Your task to perform on an android device: turn on notifications settings in the gmail app Image 0: 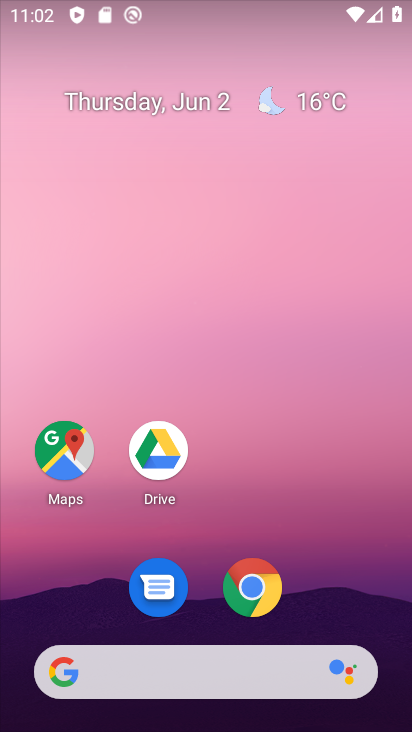
Step 0: click (370, 518)
Your task to perform on an android device: turn on notifications settings in the gmail app Image 1: 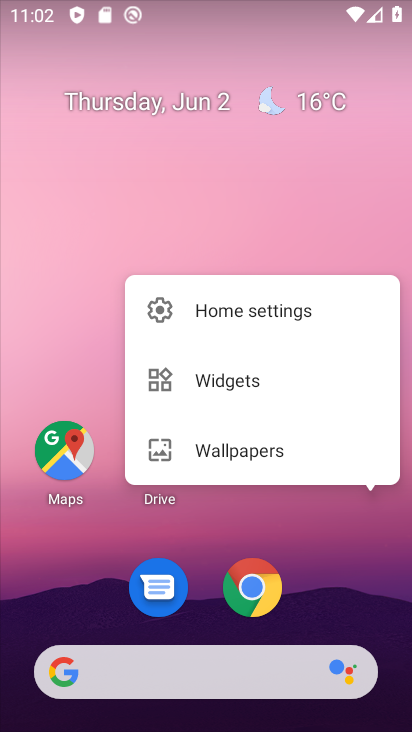
Step 1: drag from (370, 518) to (386, 273)
Your task to perform on an android device: turn on notifications settings in the gmail app Image 2: 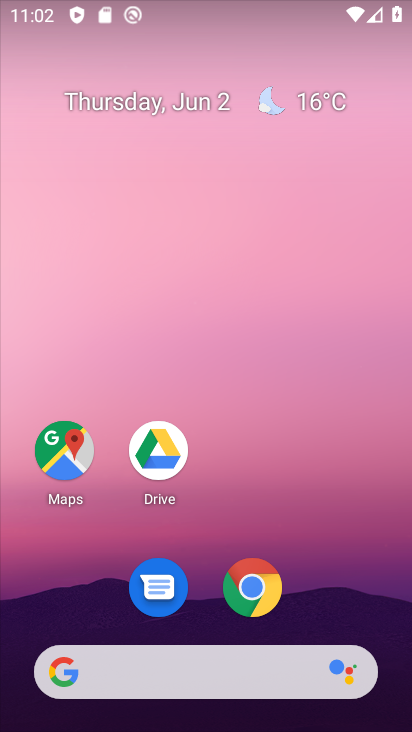
Step 2: drag from (381, 536) to (348, 85)
Your task to perform on an android device: turn on notifications settings in the gmail app Image 3: 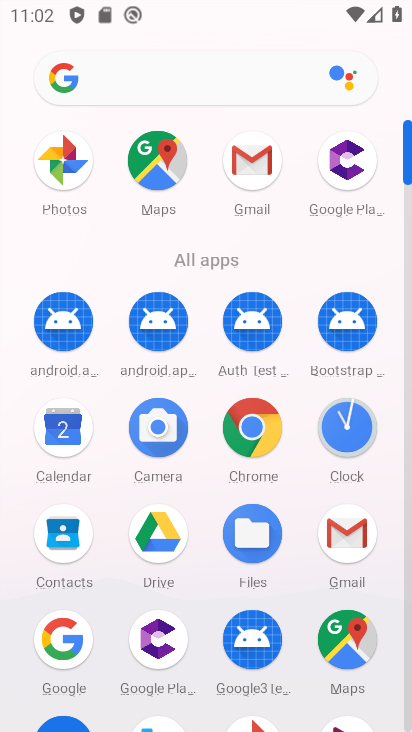
Step 3: click (346, 516)
Your task to perform on an android device: turn on notifications settings in the gmail app Image 4: 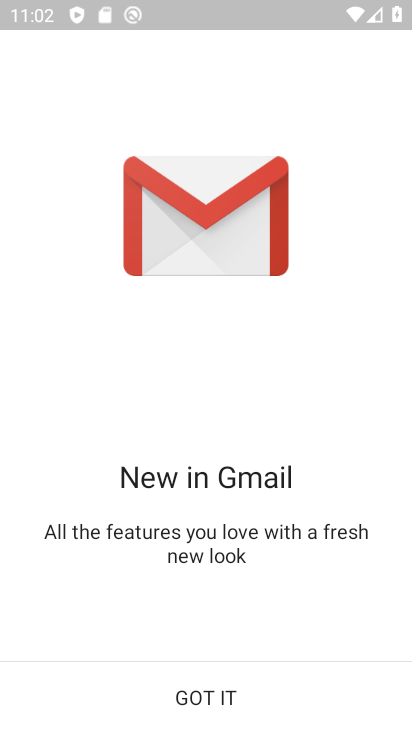
Step 4: click (246, 663)
Your task to perform on an android device: turn on notifications settings in the gmail app Image 5: 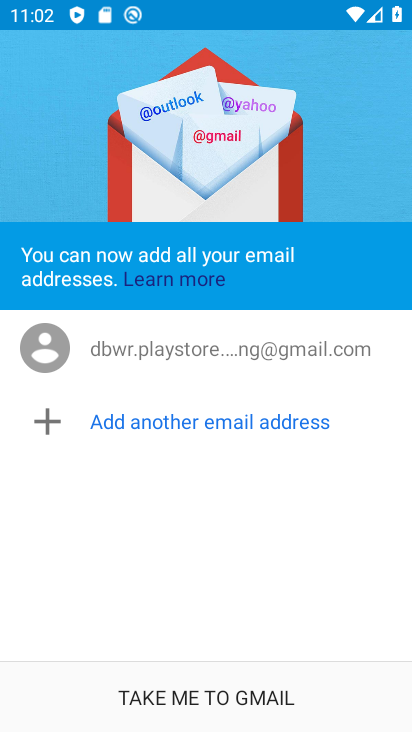
Step 5: click (233, 681)
Your task to perform on an android device: turn on notifications settings in the gmail app Image 6: 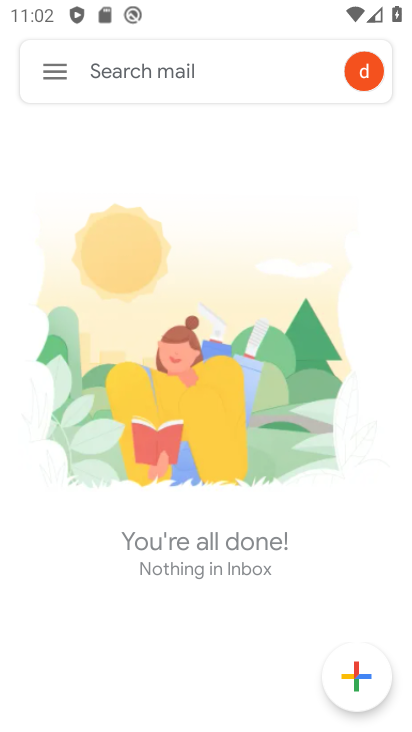
Step 6: click (64, 81)
Your task to perform on an android device: turn on notifications settings in the gmail app Image 7: 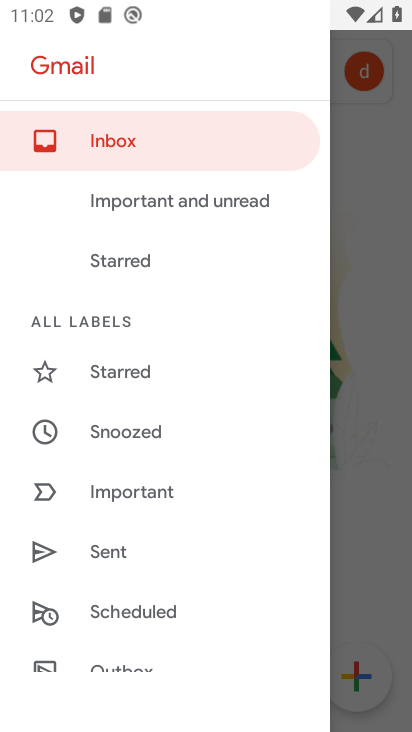
Step 7: drag from (275, 547) to (265, 222)
Your task to perform on an android device: turn on notifications settings in the gmail app Image 8: 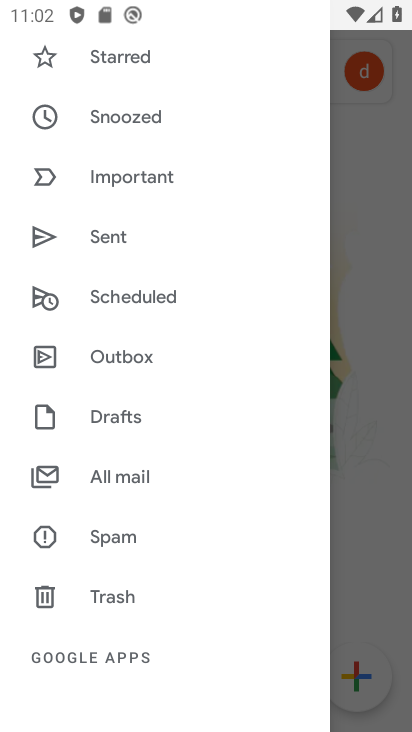
Step 8: drag from (183, 585) to (201, 272)
Your task to perform on an android device: turn on notifications settings in the gmail app Image 9: 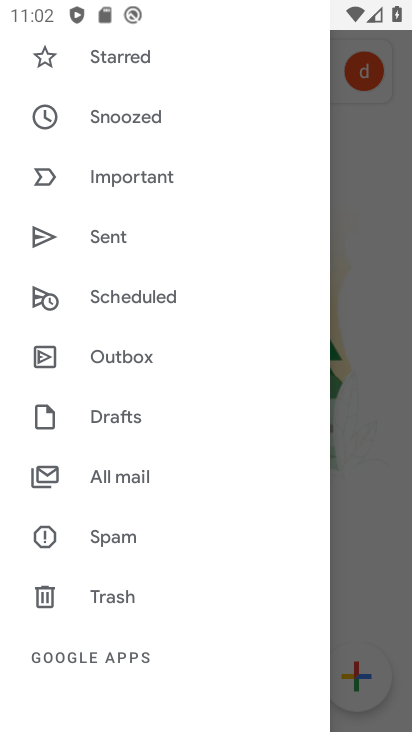
Step 9: drag from (193, 627) to (229, 399)
Your task to perform on an android device: turn on notifications settings in the gmail app Image 10: 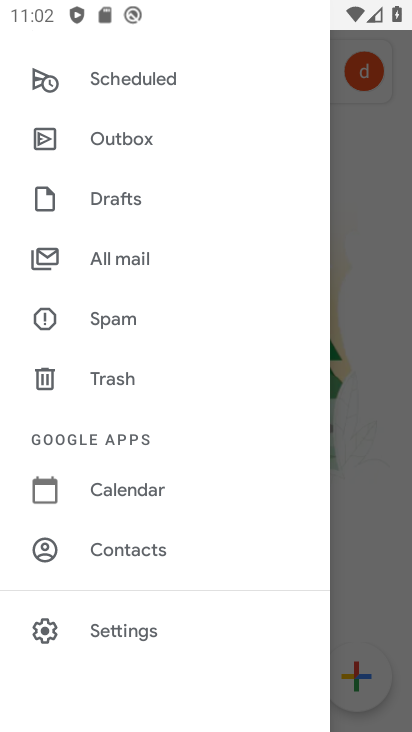
Step 10: click (199, 628)
Your task to perform on an android device: turn on notifications settings in the gmail app Image 11: 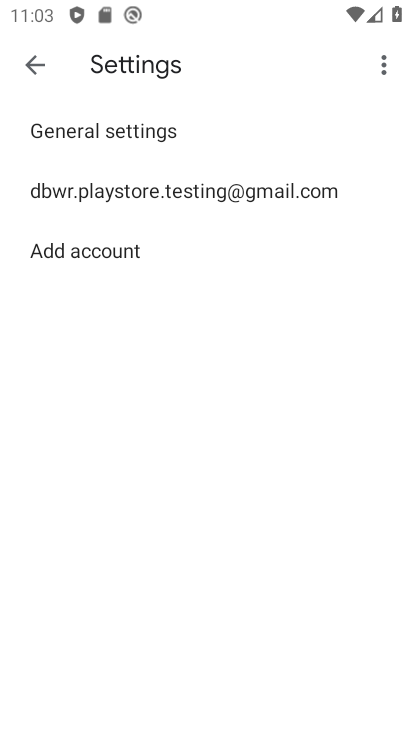
Step 11: click (195, 188)
Your task to perform on an android device: turn on notifications settings in the gmail app Image 12: 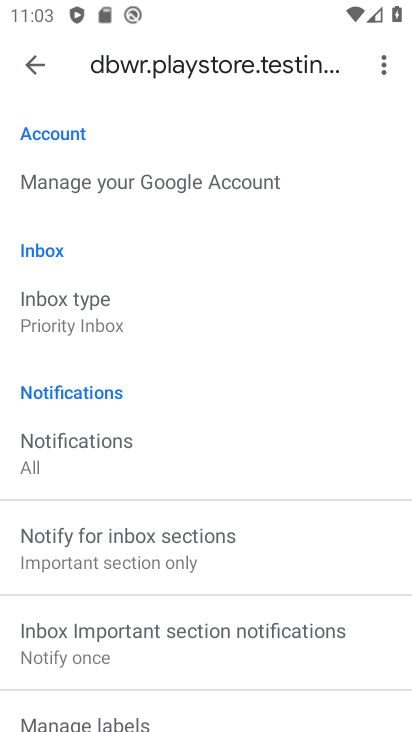
Step 12: drag from (184, 691) to (202, 348)
Your task to perform on an android device: turn on notifications settings in the gmail app Image 13: 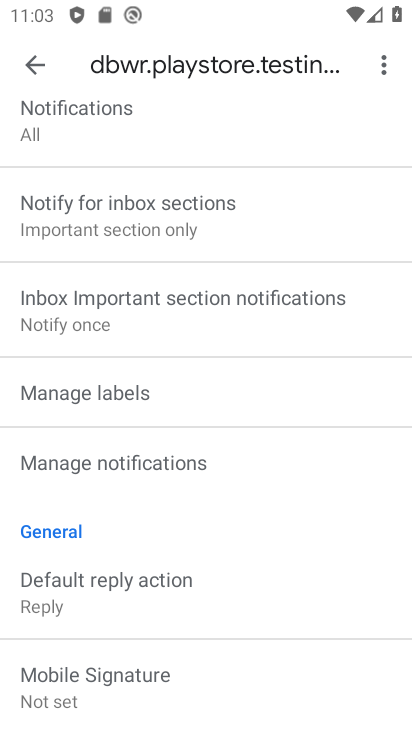
Step 13: drag from (195, 527) to (224, 291)
Your task to perform on an android device: turn on notifications settings in the gmail app Image 14: 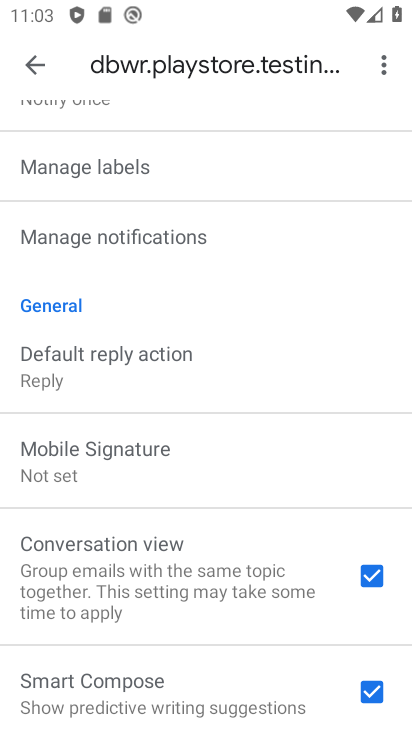
Step 14: click (241, 238)
Your task to perform on an android device: turn on notifications settings in the gmail app Image 15: 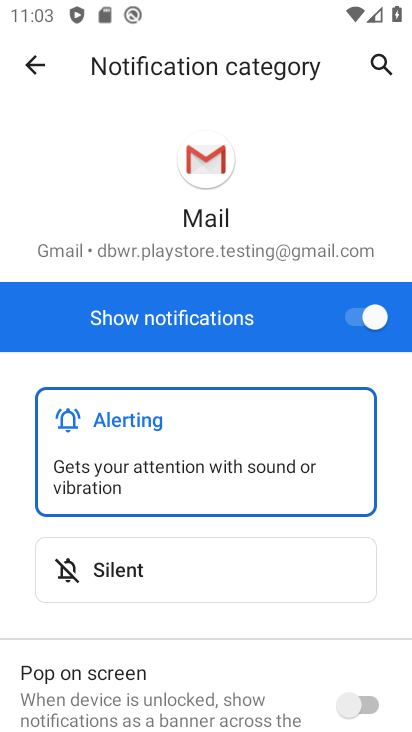
Step 15: task complete